Your task to perform on an android device: Go to Yahoo.com Image 0: 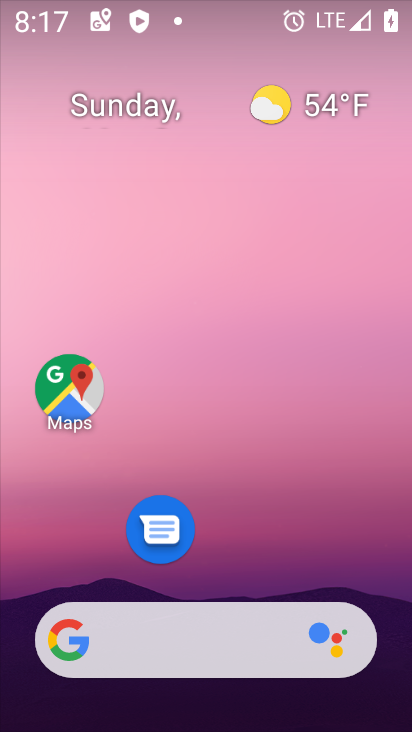
Step 0: drag from (269, 578) to (334, 39)
Your task to perform on an android device: Go to Yahoo.com Image 1: 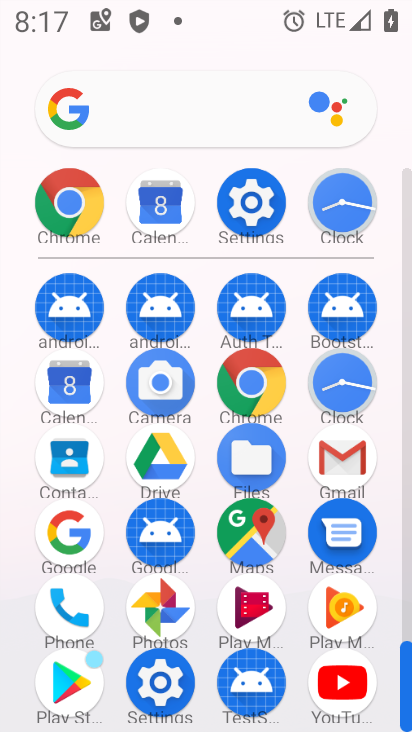
Step 1: click (71, 186)
Your task to perform on an android device: Go to Yahoo.com Image 2: 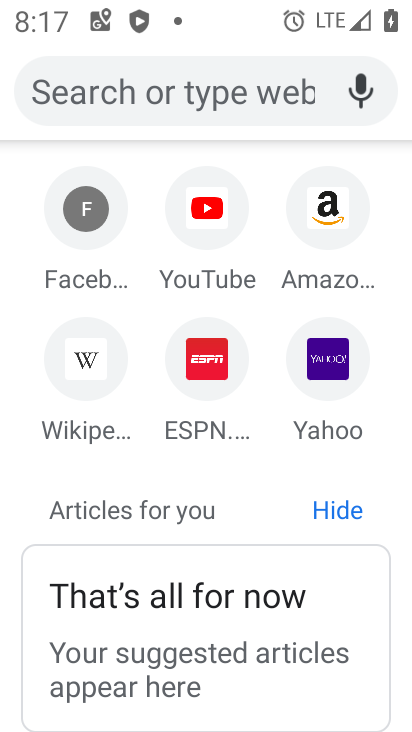
Step 2: click (305, 387)
Your task to perform on an android device: Go to Yahoo.com Image 3: 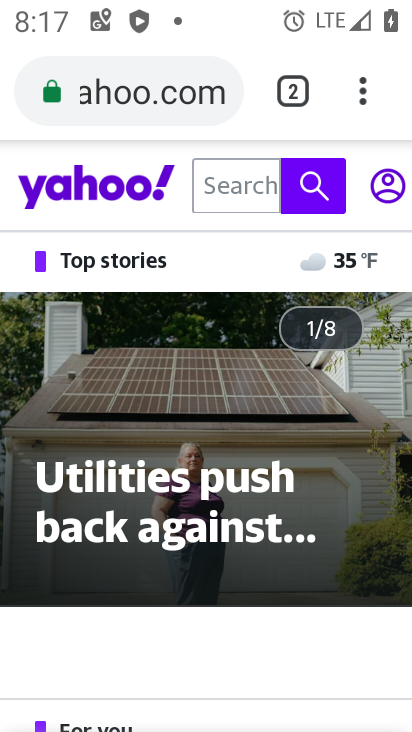
Step 3: task complete